Your task to perform on an android device: Open CNN.com Image 0: 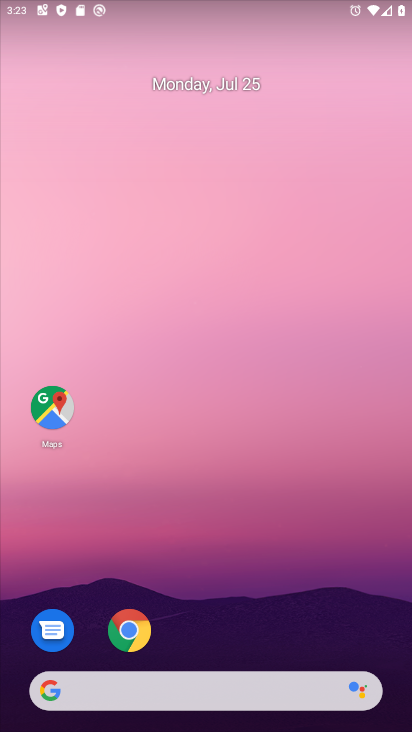
Step 0: click (131, 626)
Your task to perform on an android device: Open CNN.com Image 1: 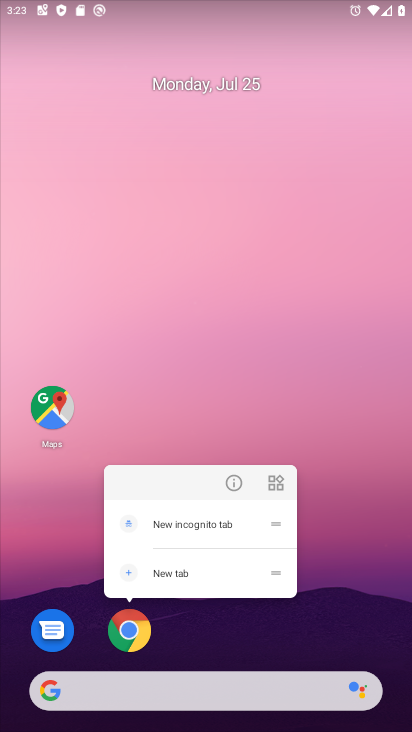
Step 1: click (131, 626)
Your task to perform on an android device: Open CNN.com Image 2: 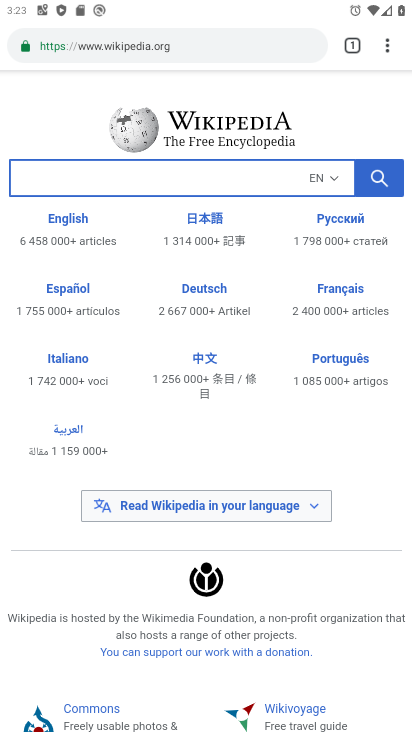
Step 2: click (142, 45)
Your task to perform on an android device: Open CNN.com Image 3: 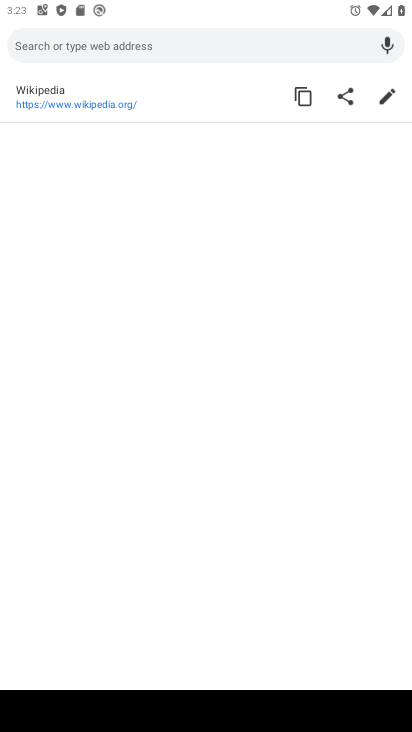
Step 3: type "cnn.com"
Your task to perform on an android device: Open CNN.com Image 4: 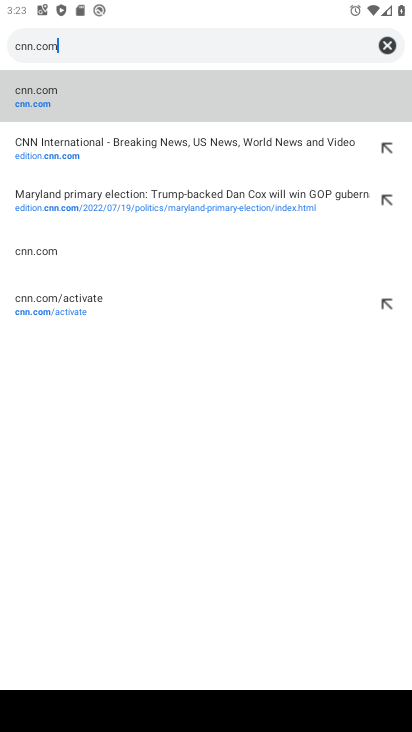
Step 4: click (166, 99)
Your task to perform on an android device: Open CNN.com Image 5: 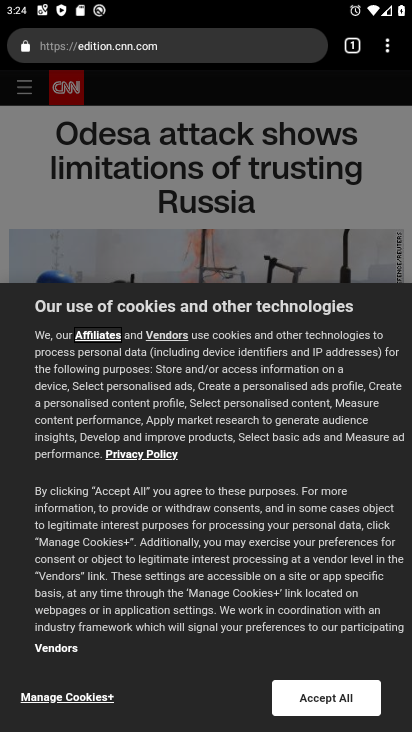
Step 5: task complete